Your task to perform on an android device: manage bookmarks in the chrome app Image 0: 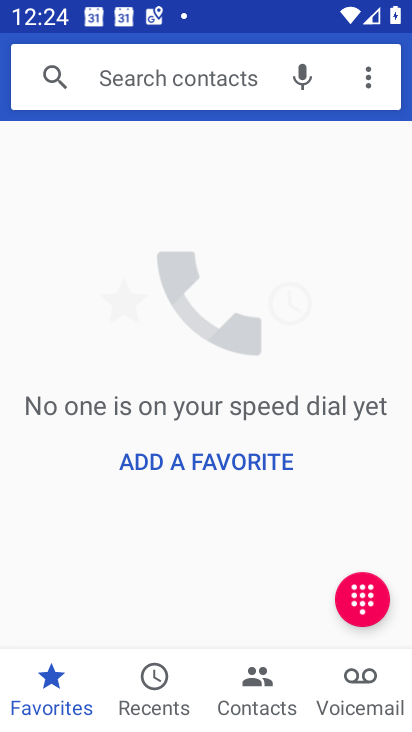
Step 0: press home button
Your task to perform on an android device: manage bookmarks in the chrome app Image 1: 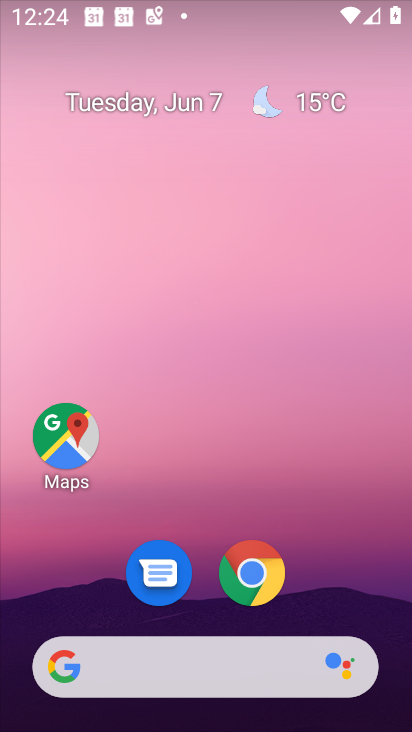
Step 1: click (259, 578)
Your task to perform on an android device: manage bookmarks in the chrome app Image 2: 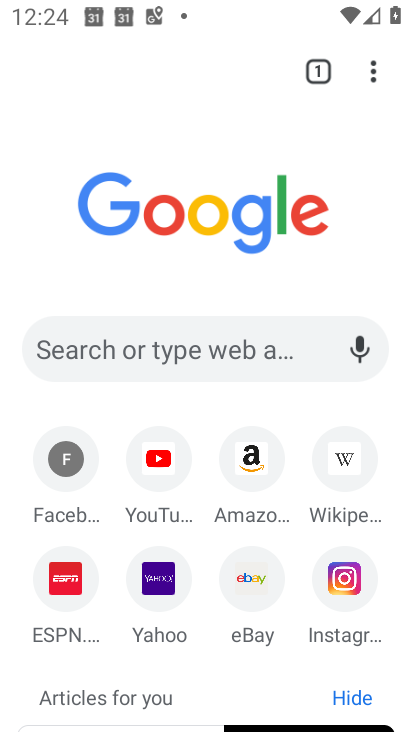
Step 2: task complete